Your task to perform on an android device: Open Reddit.com Image 0: 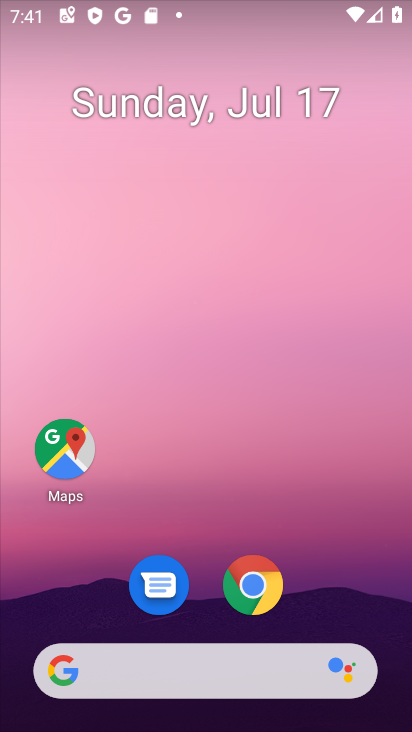
Step 0: click (223, 688)
Your task to perform on an android device: Open Reddit.com Image 1: 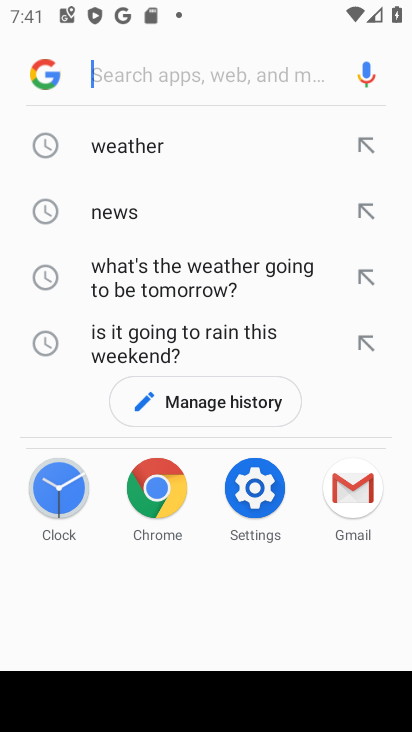
Step 1: type "reddit.com"
Your task to perform on an android device: Open Reddit.com Image 2: 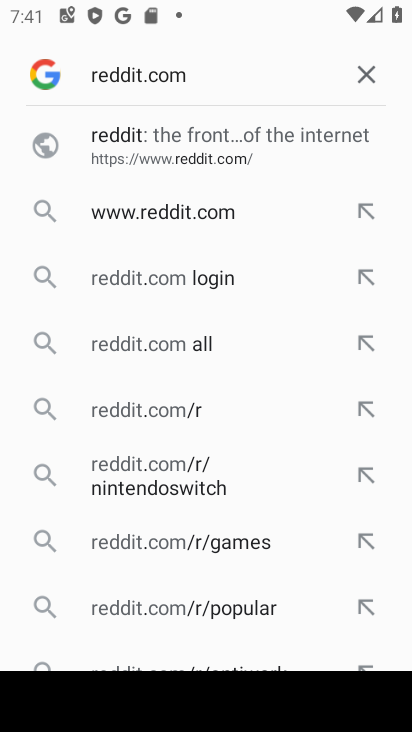
Step 2: click (162, 156)
Your task to perform on an android device: Open Reddit.com Image 3: 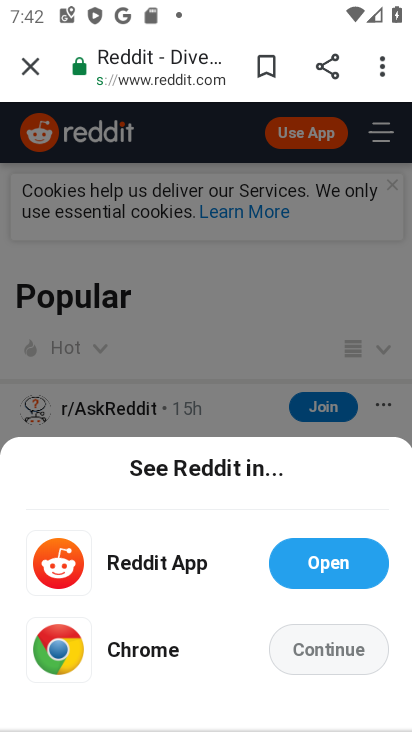
Step 3: click (349, 661)
Your task to perform on an android device: Open Reddit.com Image 4: 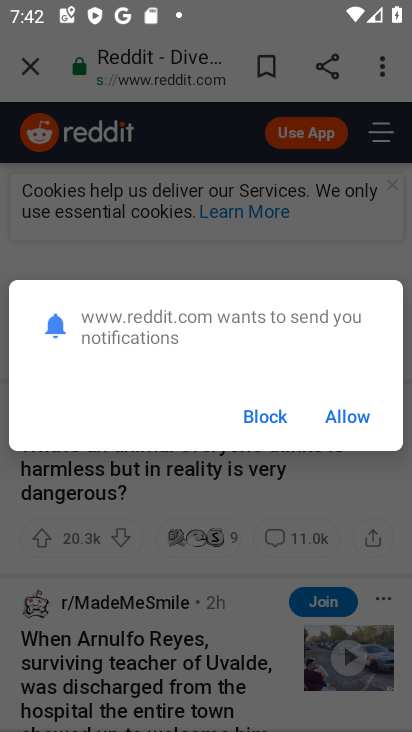
Step 4: click (269, 413)
Your task to perform on an android device: Open Reddit.com Image 5: 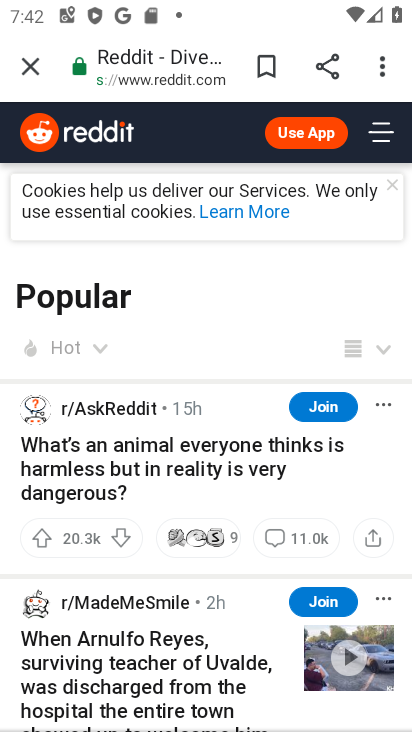
Step 5: task complete